Your task to perform on an android device: Show me productivity apps on the Play Store Image 0: 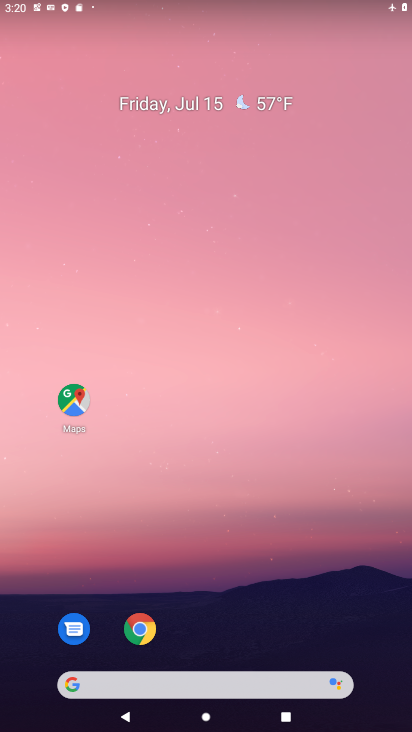
Step 0: drag from (299, 586) to (320, 200)
Your task to perform on an android device: Show me productivity apps on the Play Store Image 1: 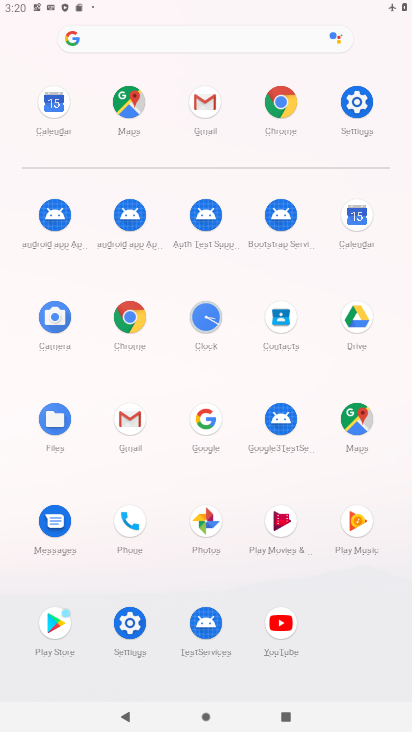
Step 1: click (58, 627)
Your task to perform on an android device: Show me productivity apps on the Play Store Image 2: 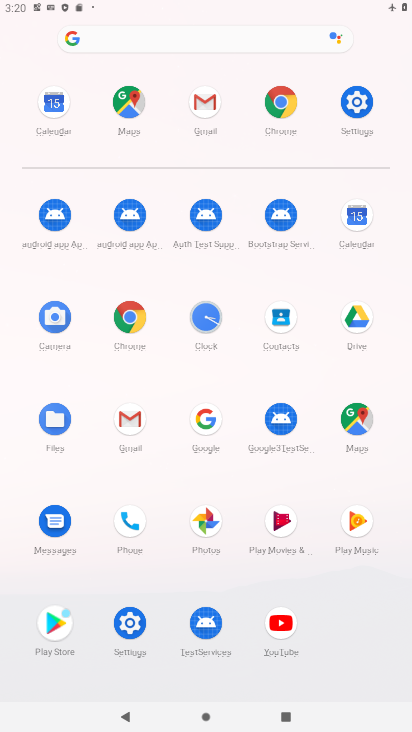
Step 2: click (58, 627)
Your task to perform on an android device: Show me productivity apps on the Play Store Image 3: 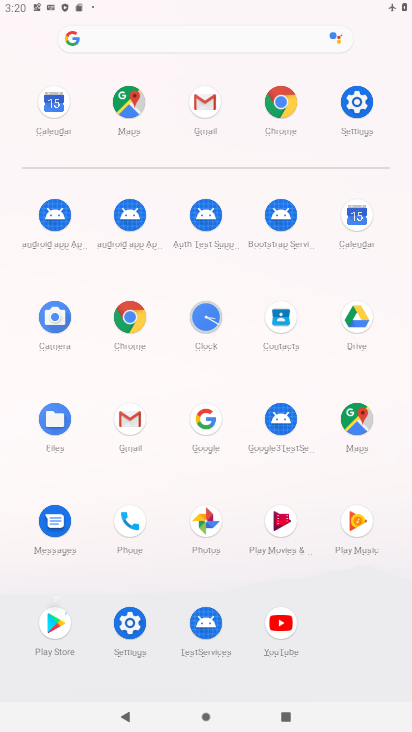
Step 3: click (57, 627)
Your task to perform on an android device: Show me productivity apps on the Play Store Image 4: 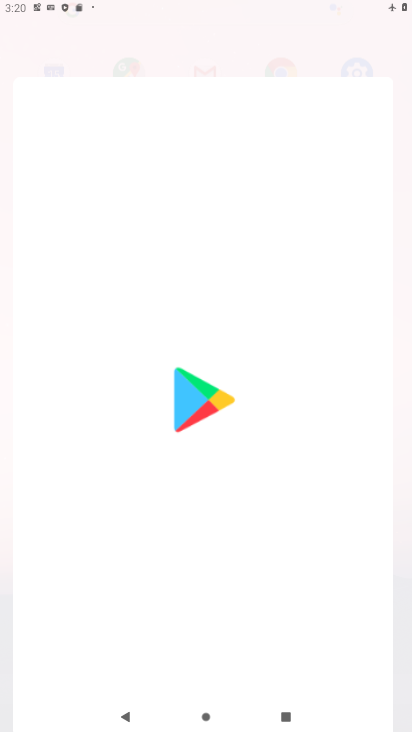
Step 4: click (57, 626)
Your task to perform on an android device: Show me productivity apps on the Play Store Image 5: 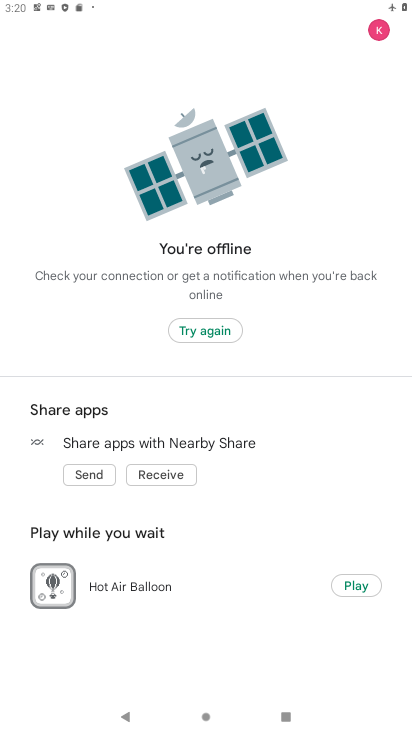
Step 5: click (224, 333)
Your task to perform on an android device: Show me productivity apps on the Play Store Image 6: 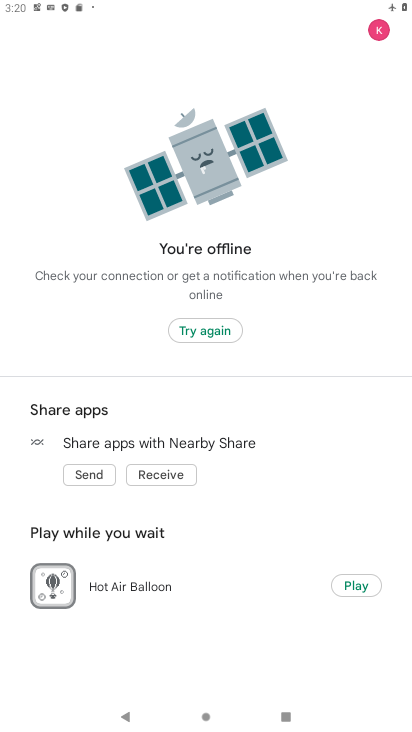
Step 6: task complete